Your task to perform on an android device: toggle notifications settings in the gmail app Image 0: 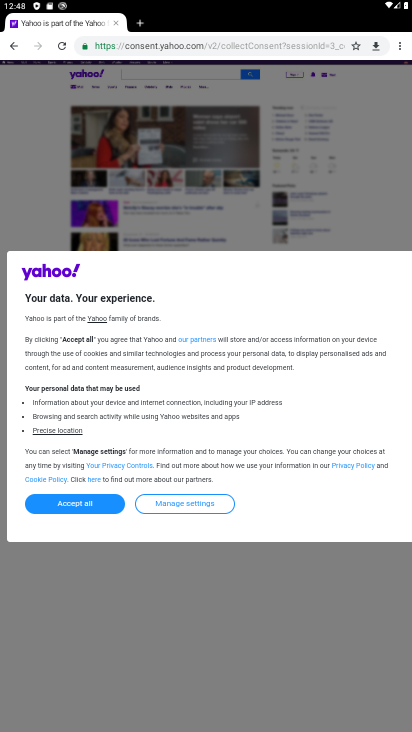
Step 0: press home button
Your task to perform on an android device: toggle notifications settings in the gmail app Image 1: 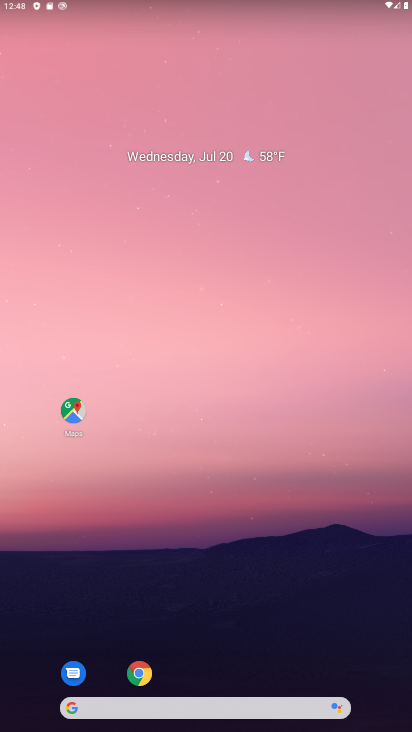
Step 1: drag from (346, 581) to (186, 0)
Your task to perform on an android device: toggle notifications settings in the gmail app Image 2: 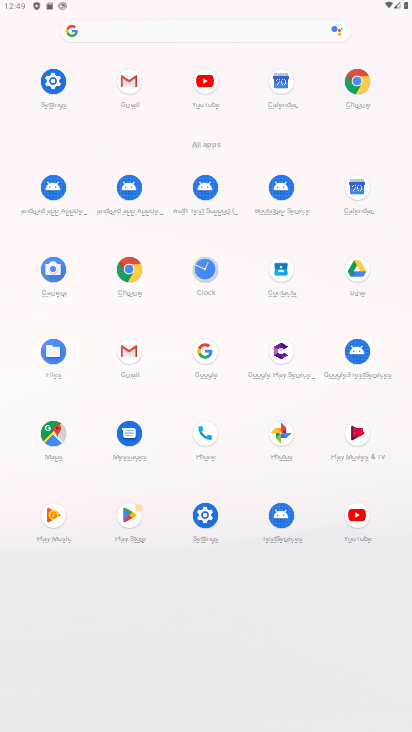
Step 2: click (135, 346)
Your task to perform on an android device: toggle notifications settings in the gmail app Image 3: 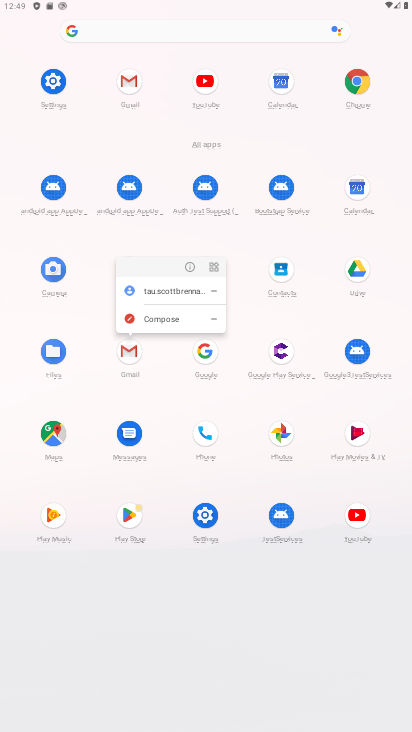
Step 3: click (192, 266)
Your task to perform on an android device: toggle notifications settings in the gmail app Image 4: 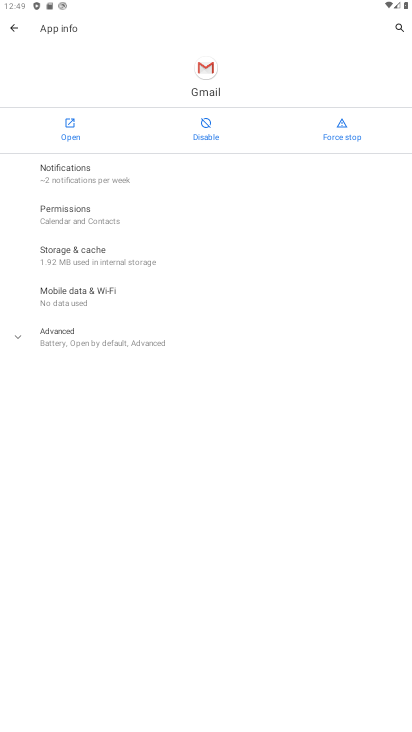
Step 4: click (87, 167)
Your task to perform on an android device: toggle notifications settings in the gmail app Image 5: 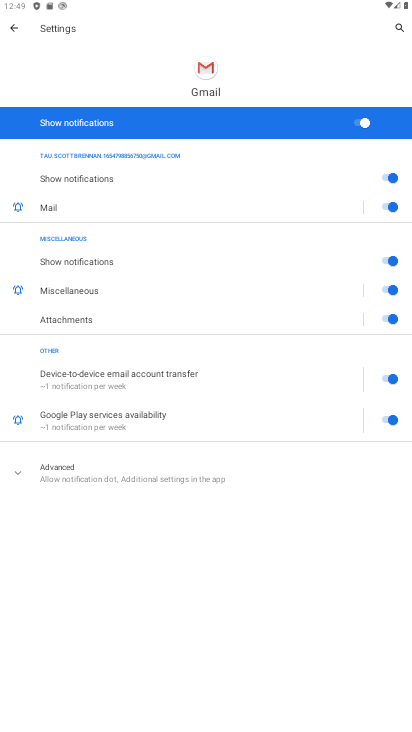
Step 5: click (365, 126)
Your task to perform on an android device: toggle notifications settings in the gmail app Image 6: 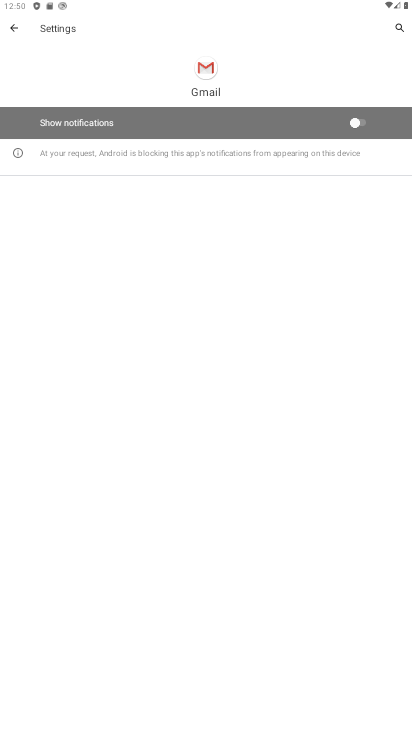
Step 6: task complete